Your task to perform on an android device: turn on improve location accuracy Image 0: 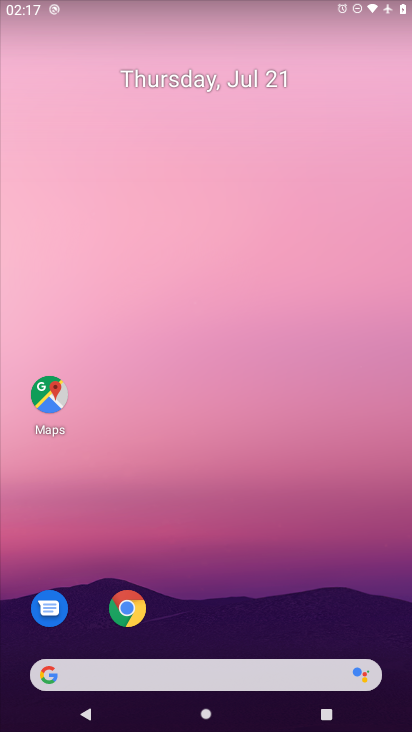
Step 0: press home button
Your task to perform on an android device: turn on improve location accuracy Image 1: 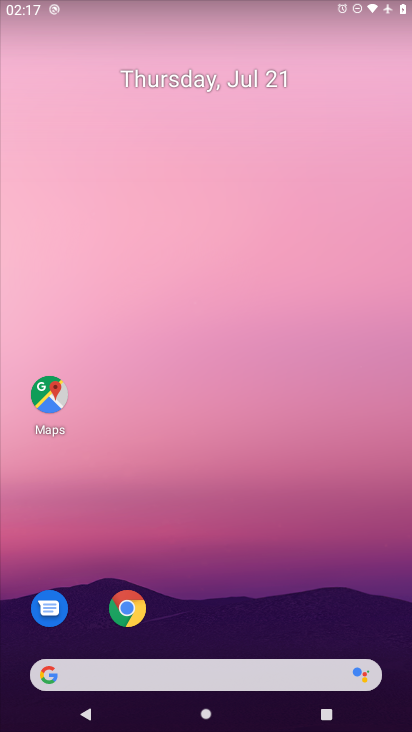
Step 1: drag from (219, 647) to (229, 58)
Your task to perform on an android device: turn on improve location accuracy Image 2: 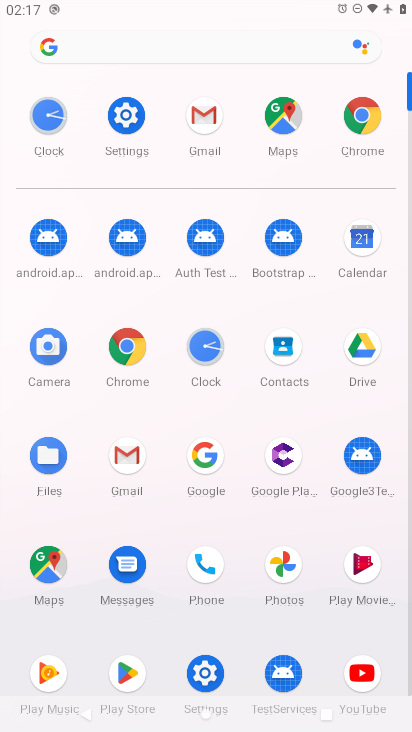
Step 2: click (112, 108)
Your task to perform on an android device: turn on improve location accuracy Image 3: 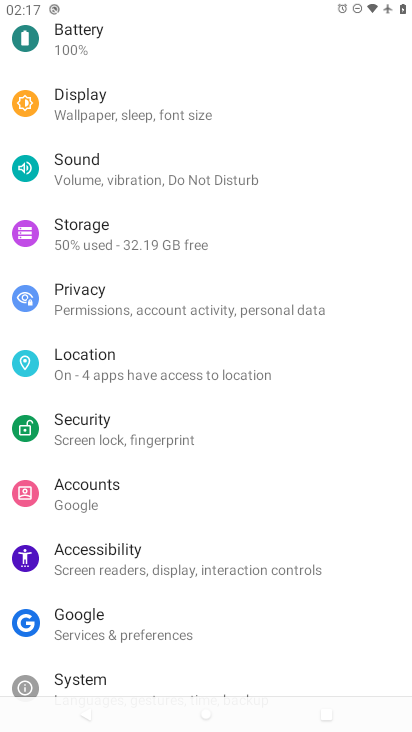
Step 3: click (98, 352)
Your task to perform on an android device: turn on improve location accuracy Image 4: 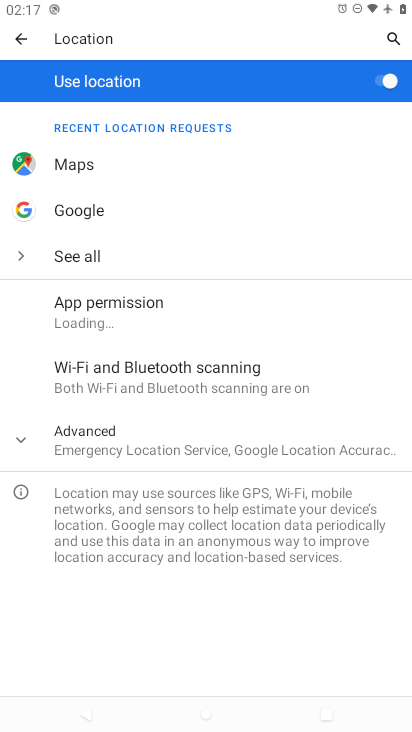
Step 4: click (86, 430)
Your task to perform on an android device: turn on improve location accuracy Image 5: 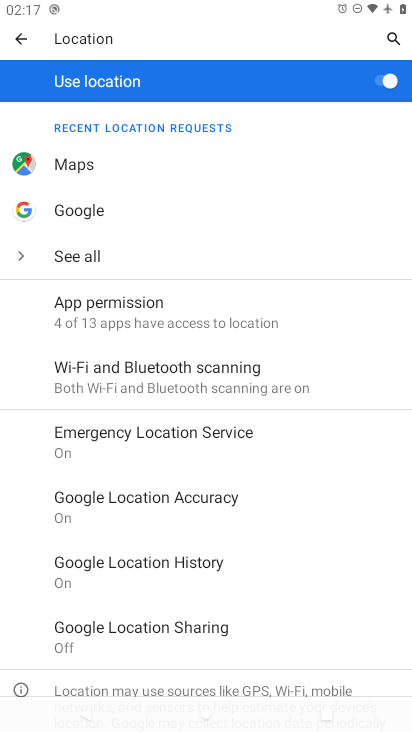
Step 5: click (141, 502)
Your task to perform on an android device: turn on improve location accuracy Image 6: 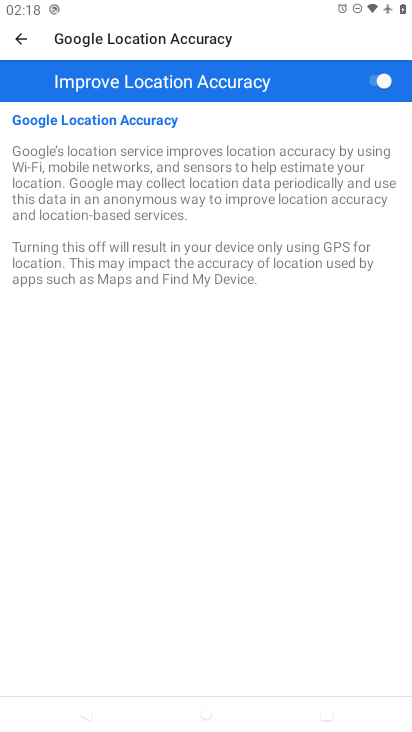
Step 6: task complete